Your task to perform on an android device: Do I have any events today? Image 0: 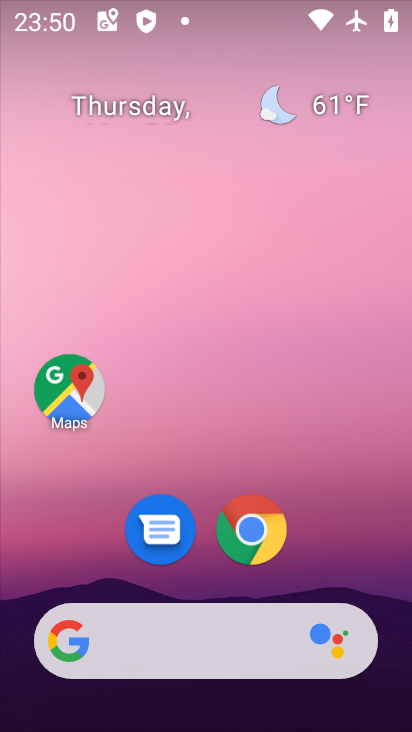
Step 0: drag from (343, 540) to (298, 158)
Your task to perform on an android device: Do I have any events today? Image 1: 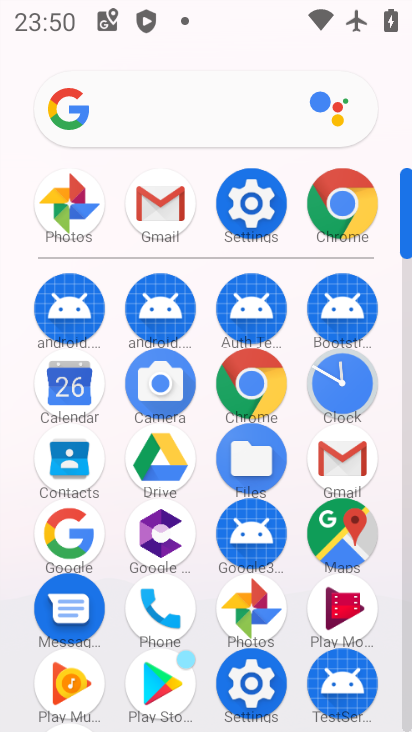
Step 1: click (256, 191)
Your task to perform on an android device: Do I have any events today? Image 2: 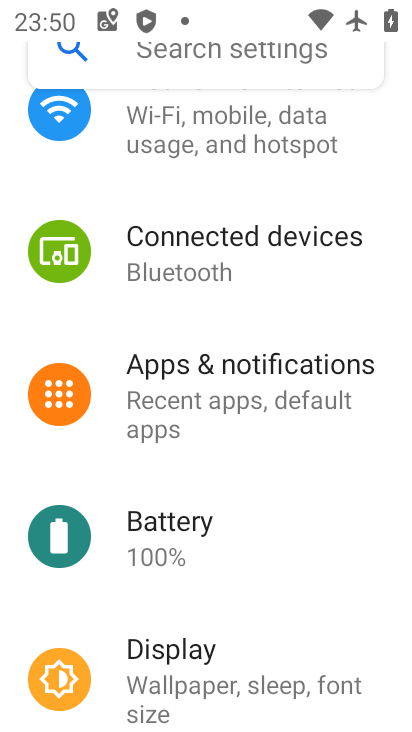
Step 2: press home button
Your task to perform on an android device: Do I have any events today? Image 3: 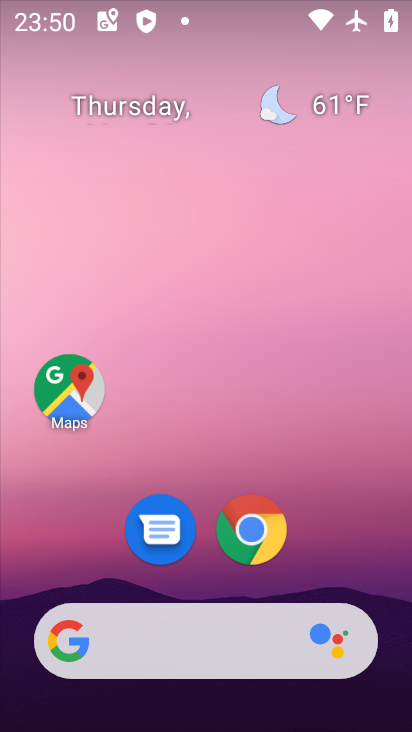
Step 3: drag from (321, 571) to (299, 130)
Your task to perform on an android device: Do I have any events today? Image 4: 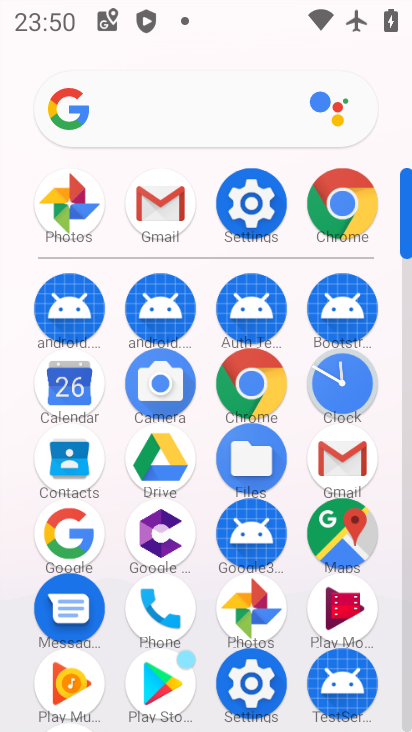
Step 4: click (75, 383)
Your task to perform on an android device: Do I have any events today? Image 5: 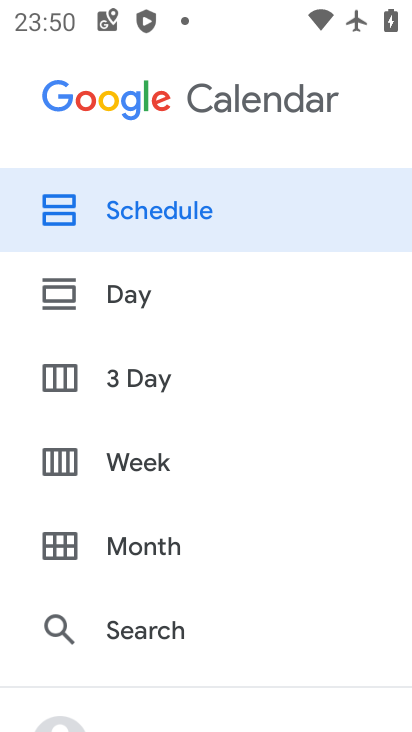
Step 5: click (181, 222)
Your task to perform on an android device: Do I have any events today? Image 6: 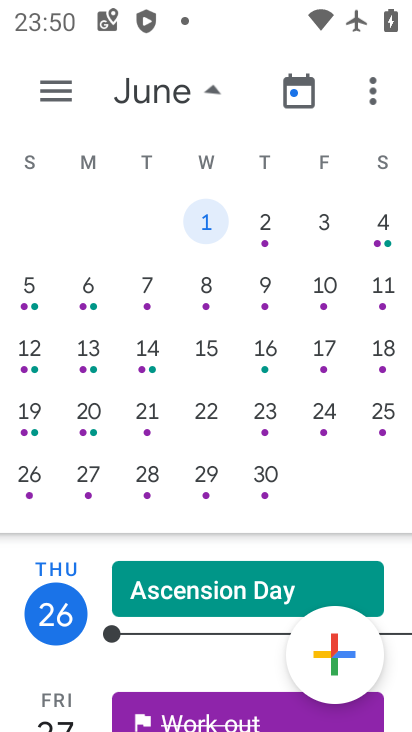
Step 6: task complete